Your task to perform on an android device: Check the news Image 0: 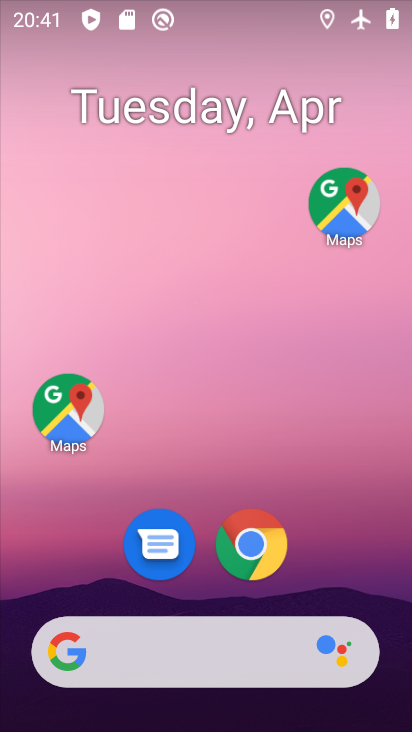
Step 0: drag from (238, 572) to (388, 0)
Your task to perform on an android device: Check the news Image 1: 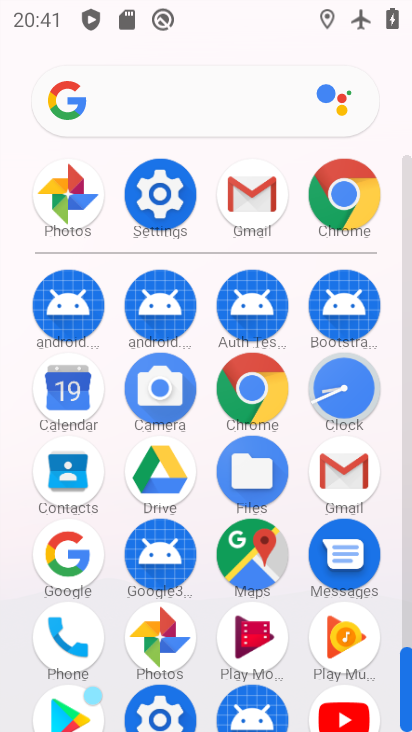
Step 1: click (74, 560)
Your task to perform on an android device: Check the news Image 2: 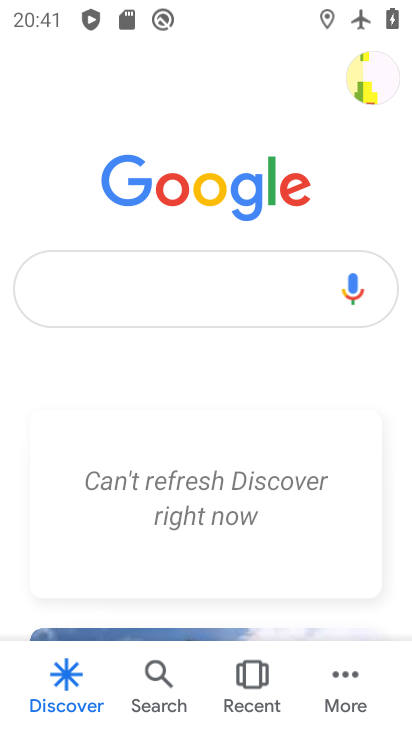
Step 2: task complete